Your task to perform on an android device: Open Google Image 0: 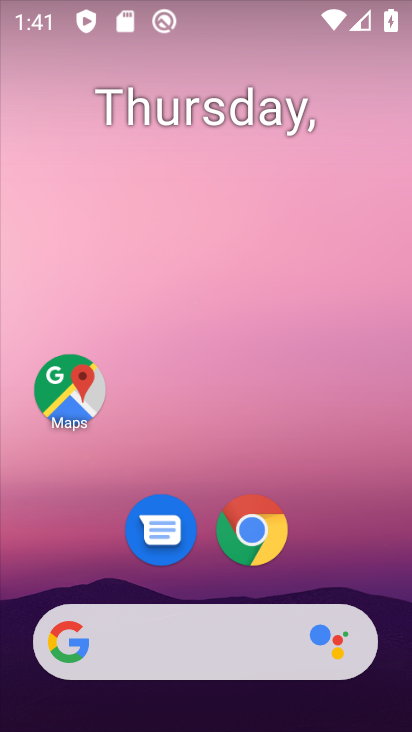
Step 0: drag from (267, 716) to (169, 108)
Your task to perform on an android device: Open Google Image 1: 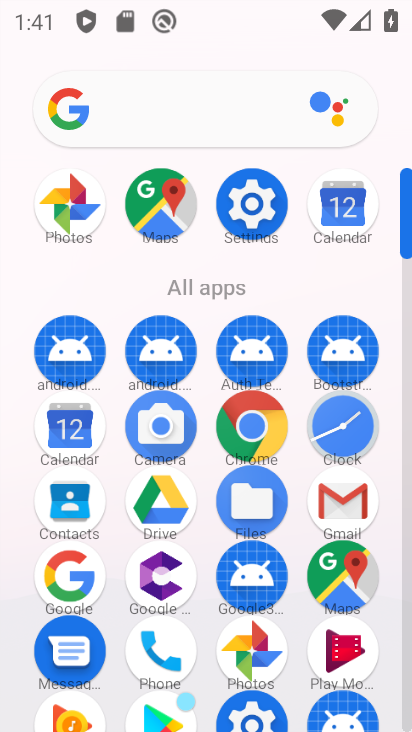
Step 1: click (50, 558)
Your task to perform on an android device: Open Google Image 2: 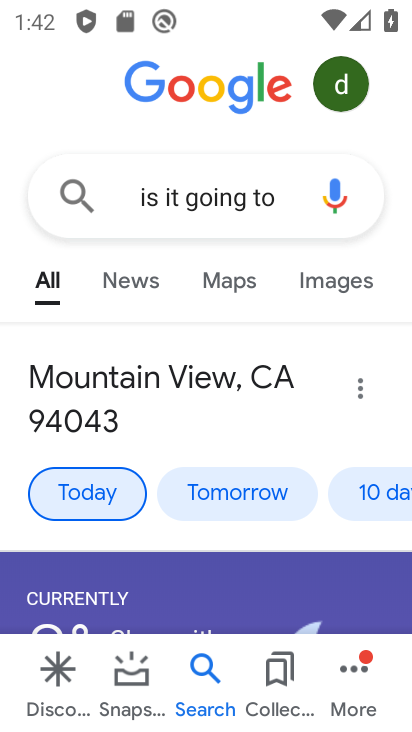
Step 2: task complete